Your task to perform on an android device: Open notification settings Image 0: 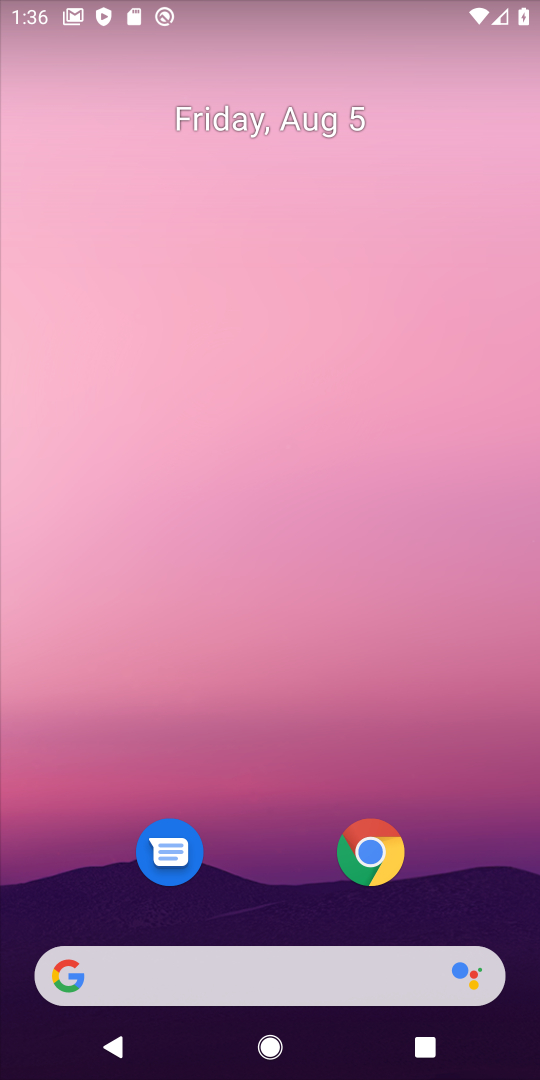
Step 0: drag from (305, 852) to (281, 103)
Your task to perform on an android device: Open notification settings Image 1: 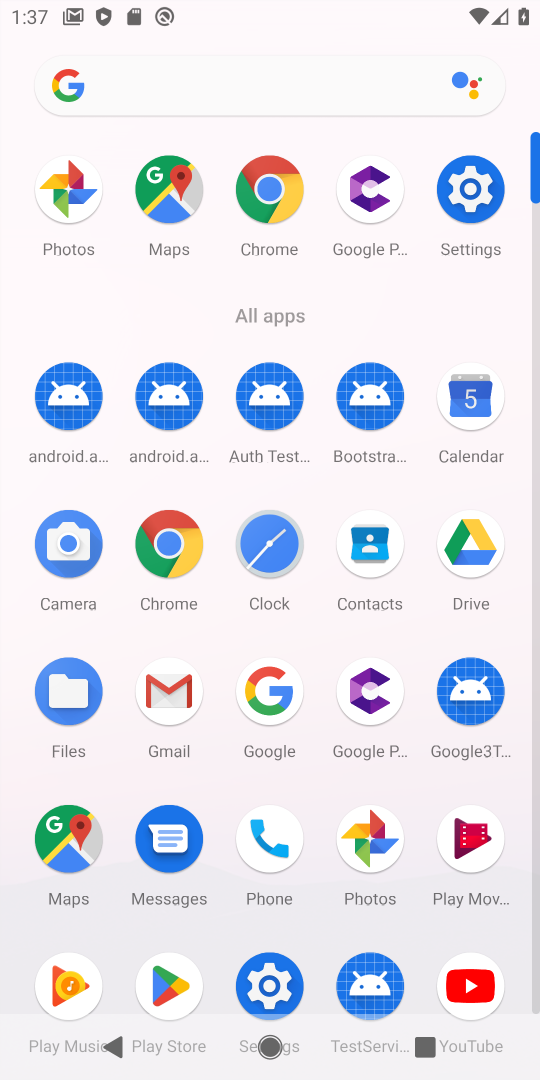
Step 1: click (471, 182)
Your task to perform on an android device: Open notification settings Image 2: 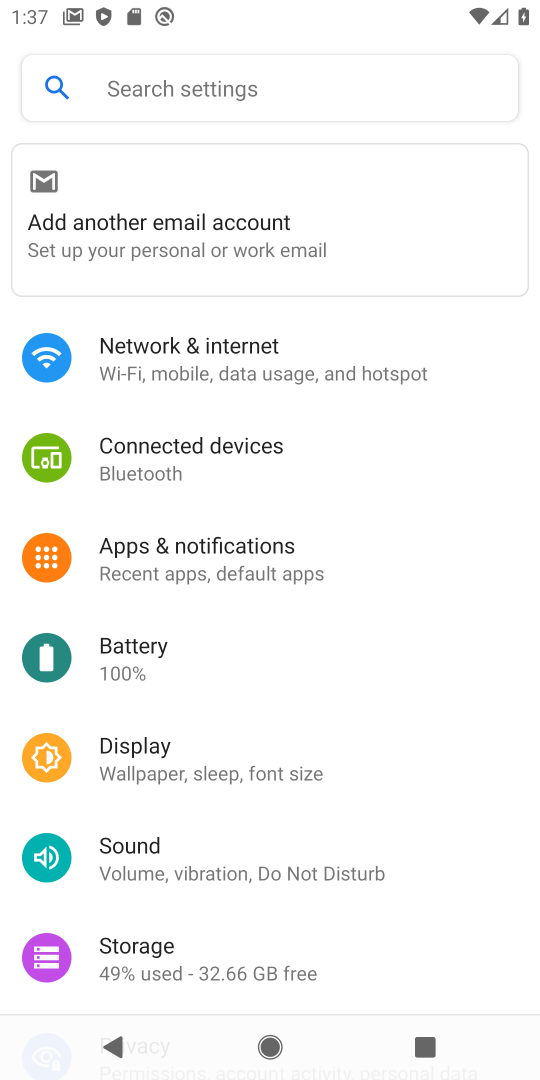
Step 2: click (204, 542)
Your task to perform on an android device: Open notification settings Image 3: 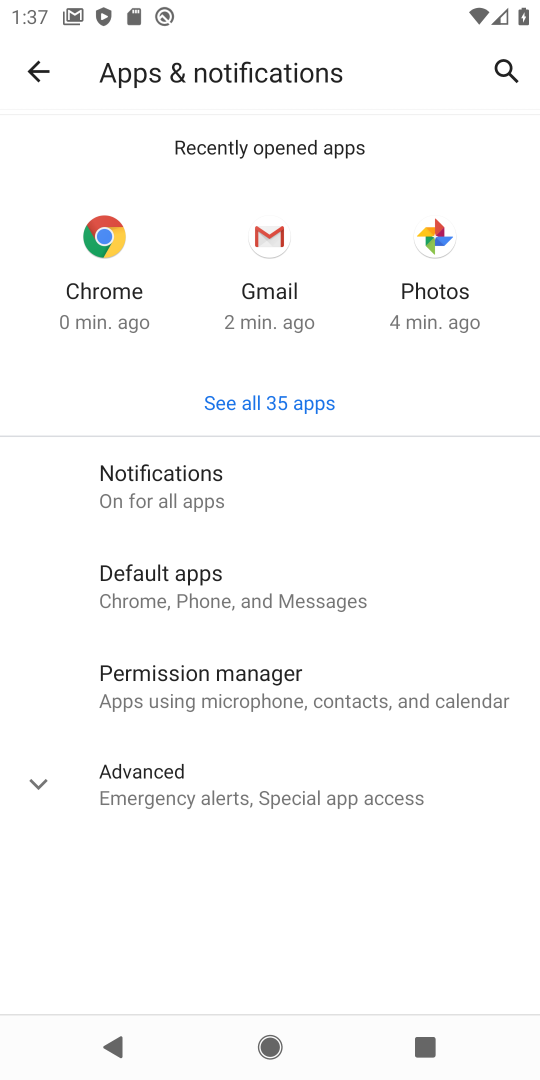
Step 3: task complete